Your task to perform on an android device: Open battery settings Image 0: 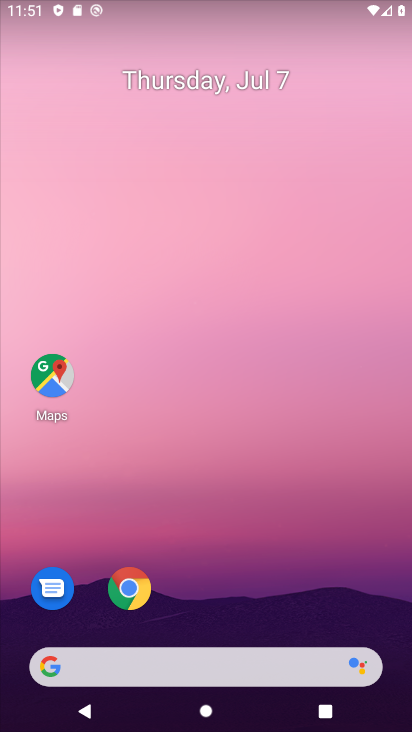
Step 0: drag from (162, 366) to (130, 89)
Your task to perform on an android device: Open battery settings Image 1: 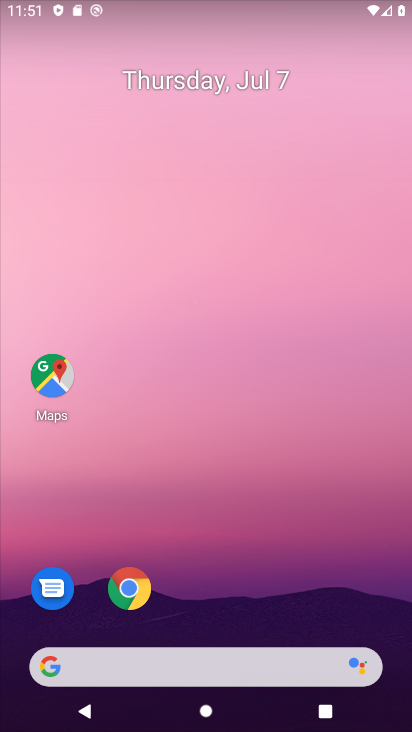
Step 1: drag from (181, 461) to (192, 49)
Your task to perform on an android device: Open battery settings Image 2: 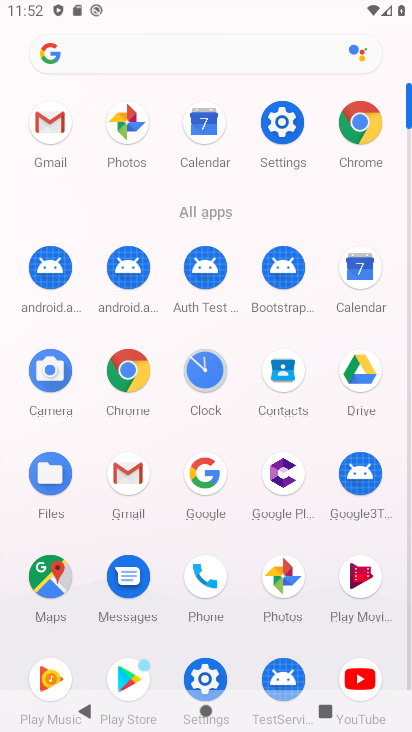
Step 2: click (279, 137)
Your task to perform on an android device: Open battery settings Image 3: 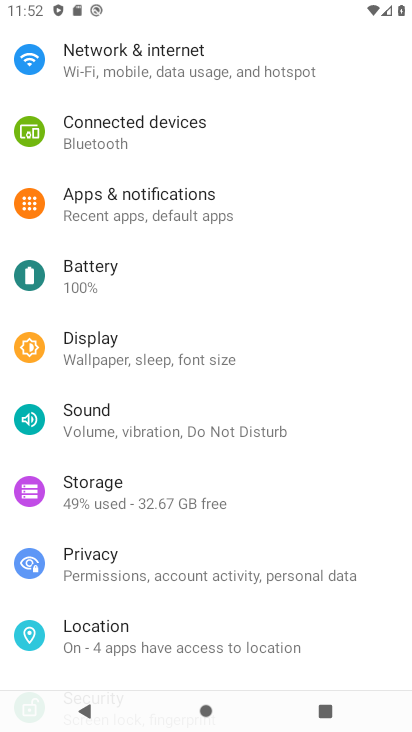
Step 3: click (119, 283)
Your task to perform on an android device: Open battery settings Image 4: 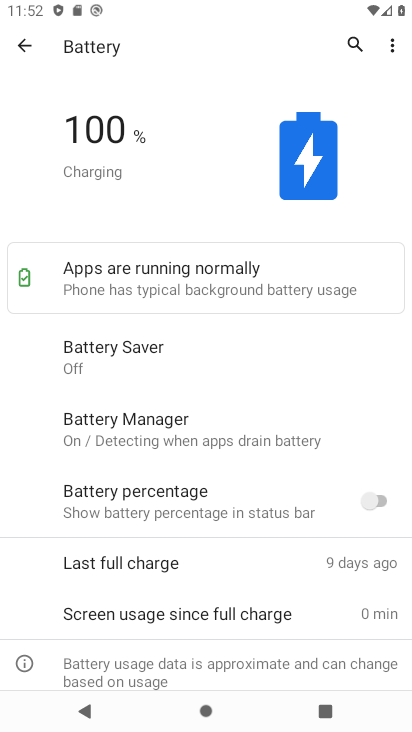
Step 4: task complete